Your task to perform on an android device: snooze an email in the gmail app Image 0: 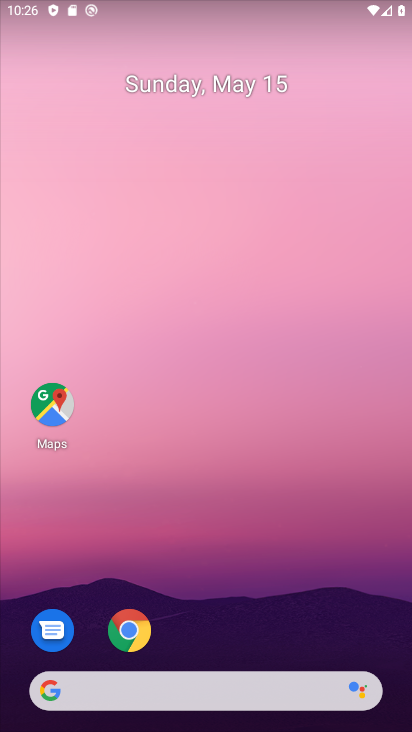
Step 0: drag from (220, 655) to (308, 73)
Your task to perform on an android device: snooze an email in the gmail app Image 1: 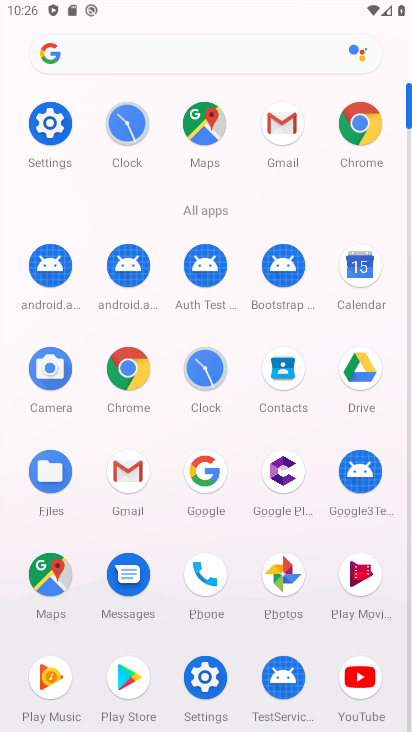
Step 1: click (285, 114)
Your task to perform on an android device: snooze an email in the gmail app Image 2: 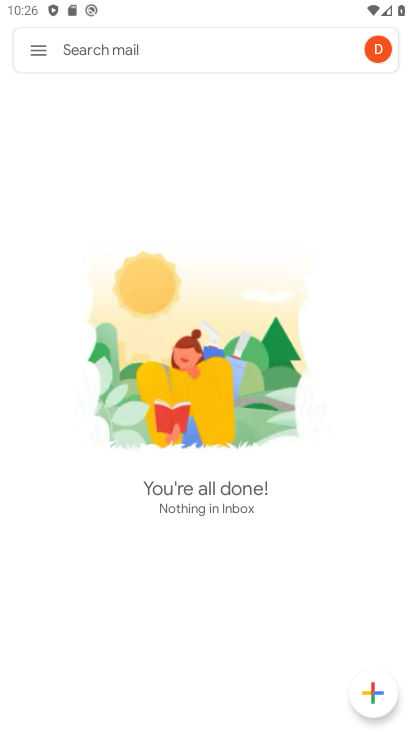
Step 2: click (50, 53)
Your task to perform on an android device: snooze an email in the gmail app Image 3: 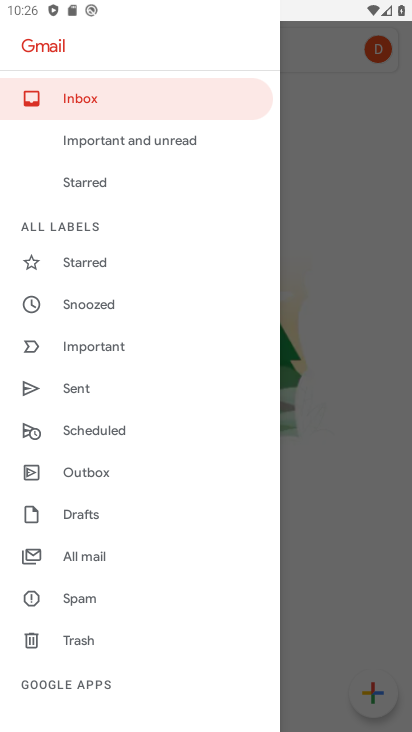
Step 3: click (73, 549)
Your task to perform on an android device: snooze an email in the gmail app Image 4: 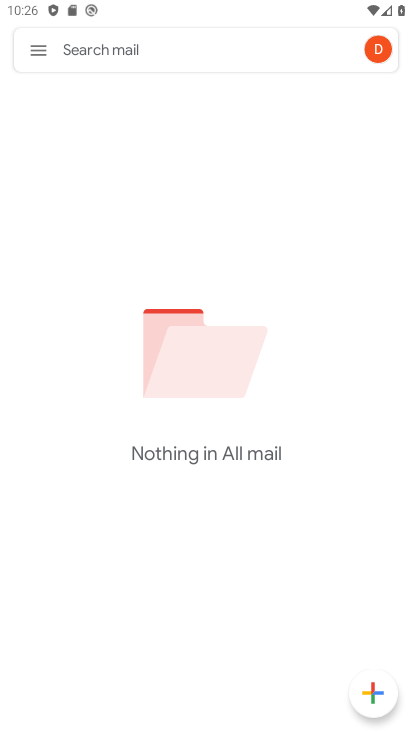
Step 4: task complete